Your task to perform on an android device: change notification settings in the gmail app Image 0: 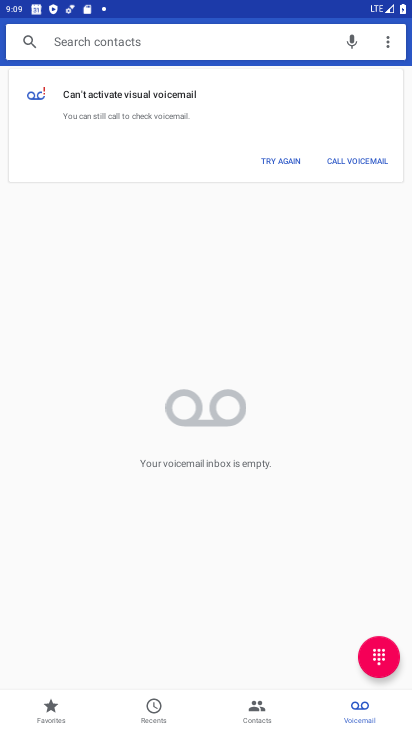
Step 0: press home button
Your task to perform on an android device: change notification settings in the gmail app Image 1: 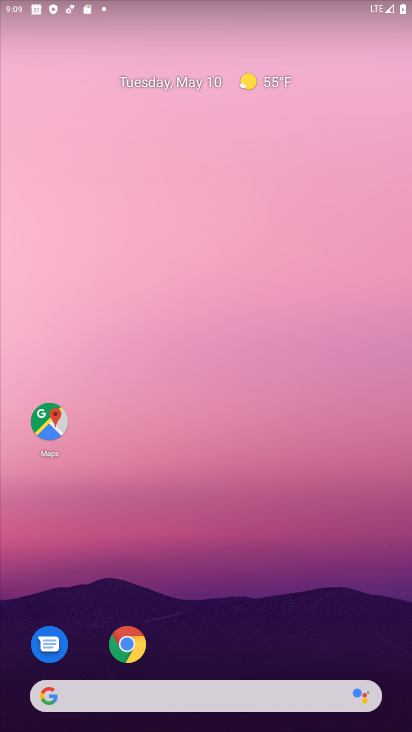
Step 1: drag from (232, 657) to (256, 41)
Your task to perform on an android device: change notification settings in the gmail app Image 2: 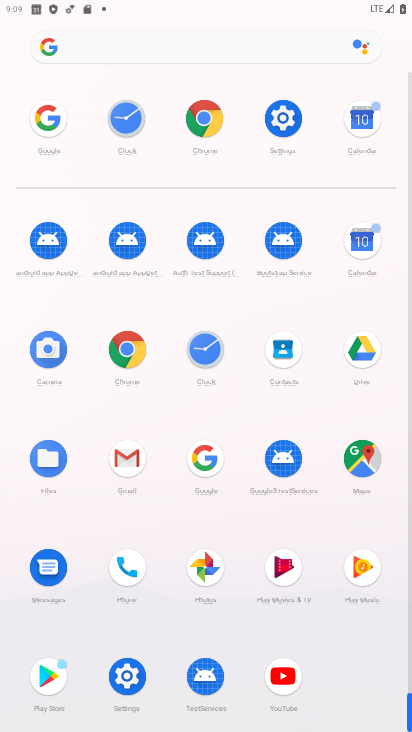
Step 2: click (131, 454)
Your task to perform on an android device: change notification settings in the gmail app Image 3: 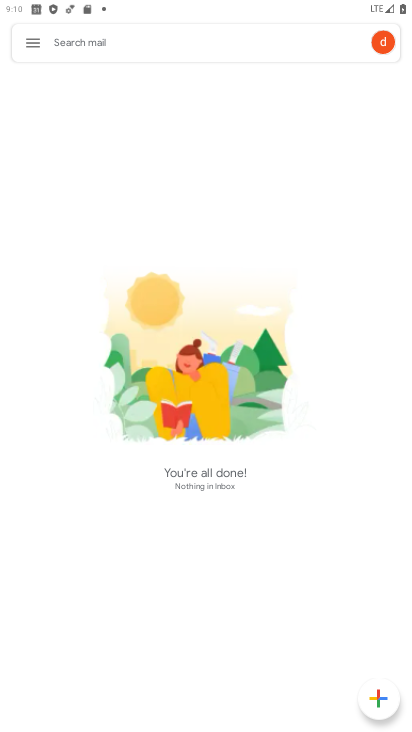
Step 3: click (34, 43)
Your task to perform on an android device: change notification settings in the gmail app Image 4: 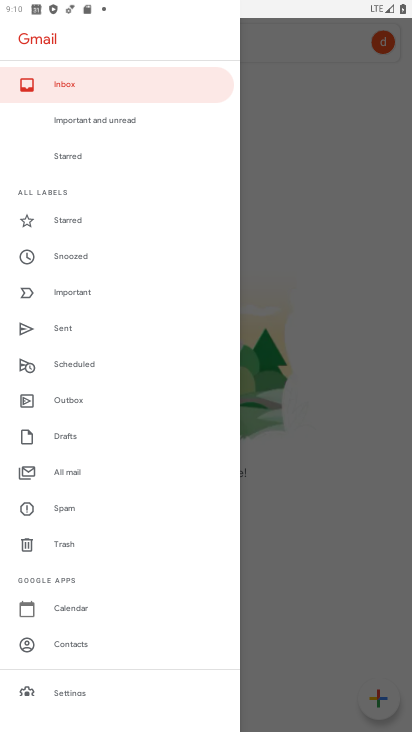
Step 4: drag from (111, 602) to (115, 309)
Your task to perform on an android device: change notification settings in the gmail app Image 5: 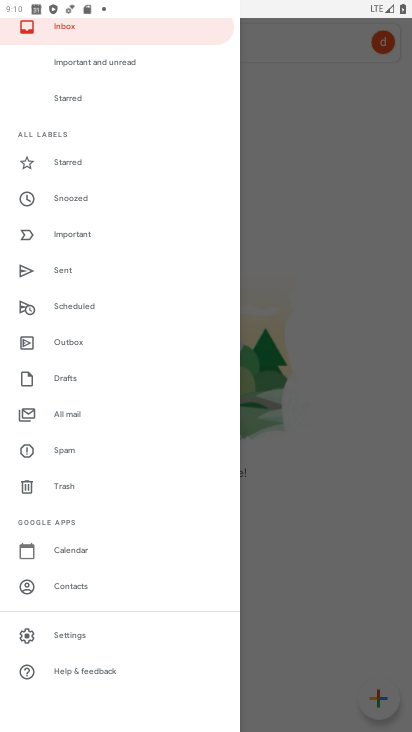
Step 5: click (81, 637)
Your task to perform on an android device: change notification settings in the gmail app Image 6: 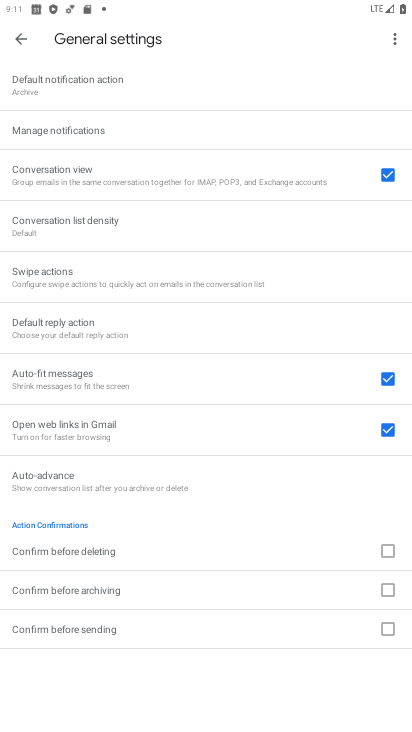
Step 6: drag from (190, 516) to (158, 220)
Your task to perform on an android device: change notification settings in the gmail app Image 7: 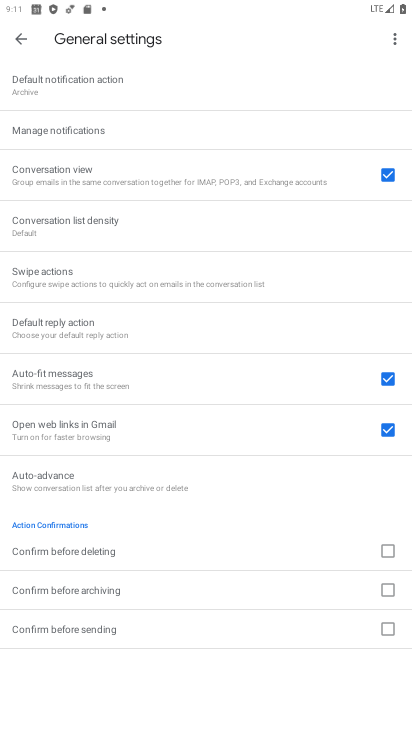
Step 7: click (107, 129)
Your task to perform on an android device: change notification settings in the gmail app Image 8: 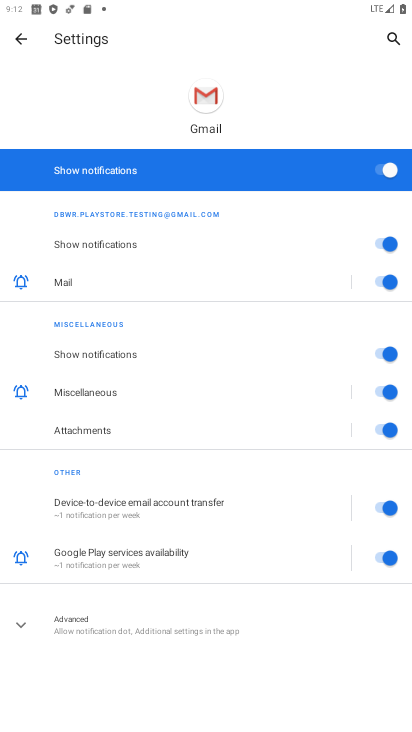
Step 8: click (368, 173)
Your task to perform on an android device: change notification settings in the gmail app Image 9: 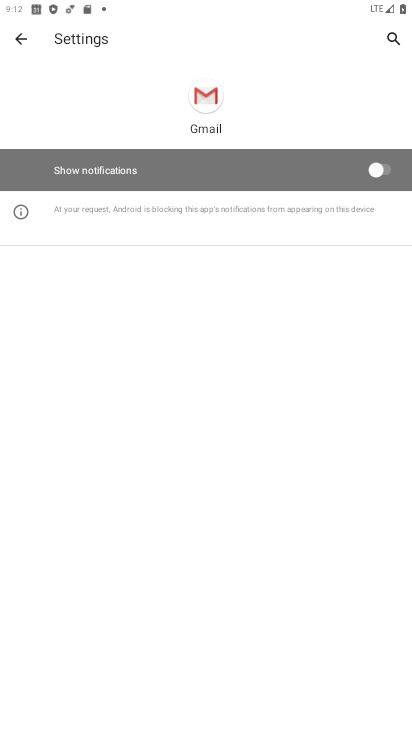
Step 9: task complete